Your task to perform on an android device: change alarm snooze length Image 0: 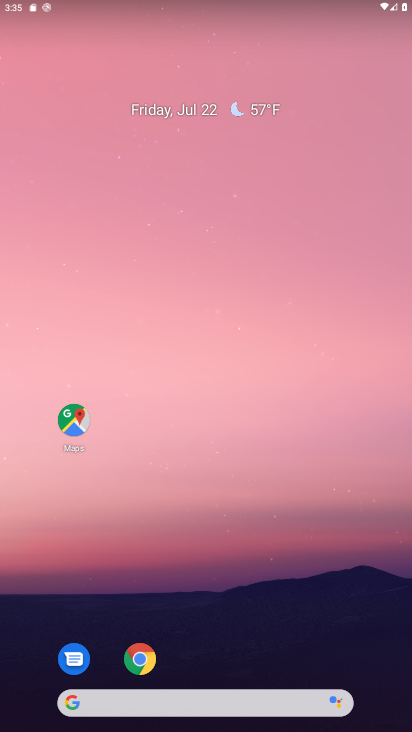
Step 0: drag from (271, 624) to (260, 35)
Your task to perform on an android device: change alarm snooze length Image 1: 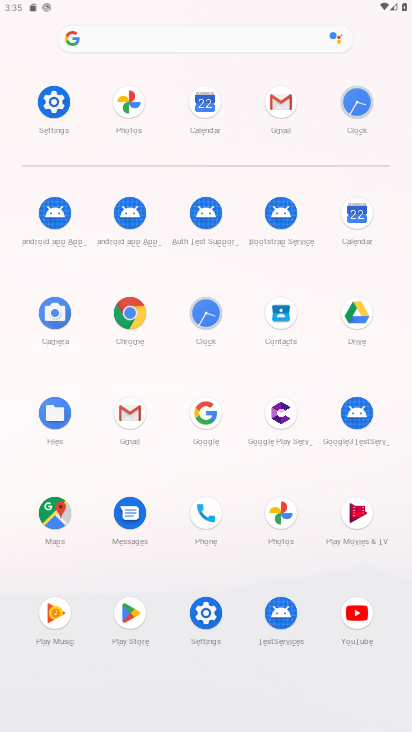
Step 1: click (204, 315)
Your task to perform on an android device: change alarm snooze length Image 2: 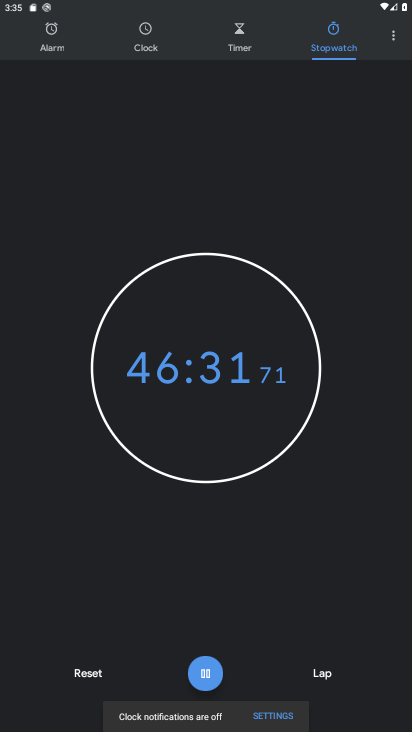
Step 2: click (386, 31)
Your task to perform on an android device: change alarm snooze length Image 3: 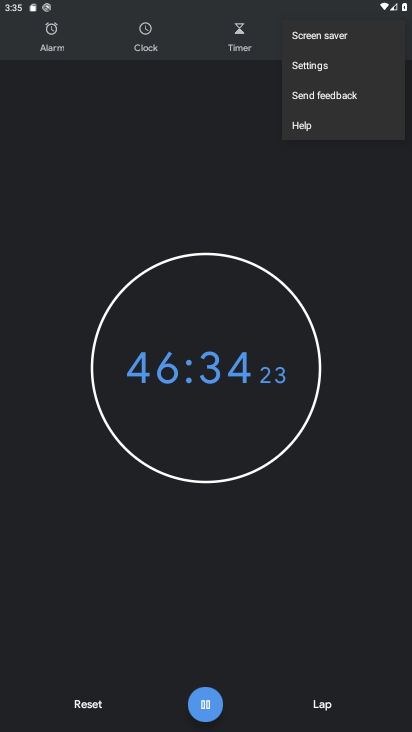
Step 3: click (311, 71)
Your task to perform on an android device: change alarm snooze length Image 4: 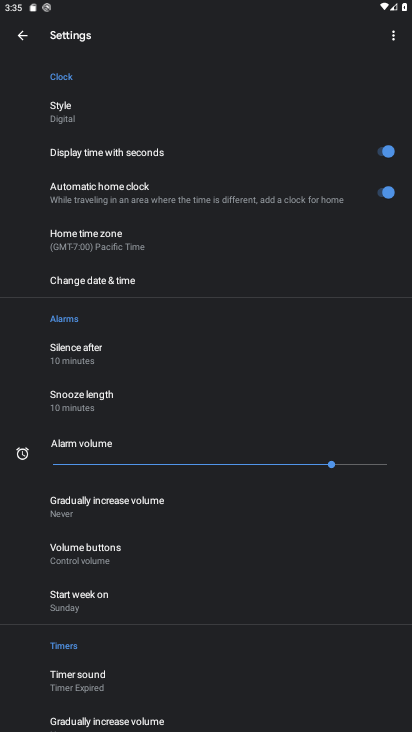
Step 4: click (87, 400)
Your task to perform on an android device: change alarm snooze length Image 5: 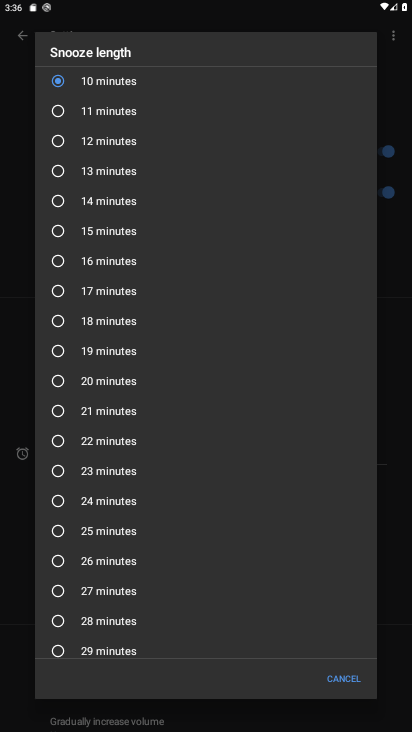
Step 5: click (114, 267)
Your task to perform on an android device: change alarm snooze length Image 6: 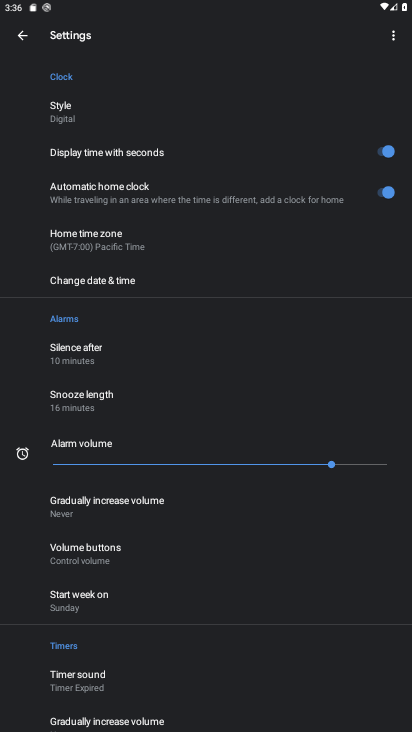
Step 6: task complete